Your task to perform on an android device: Add "razer blade" to the cart on bestbuy.com, then select checkout. Image 0: 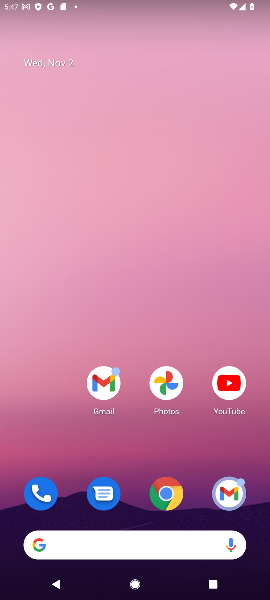
Step 0: drag from (76, 492) to (157, 102)
Your task to perform on an android device: Add "razer blade" to the cart on bestbuy.com, then select checkout. Image 1: 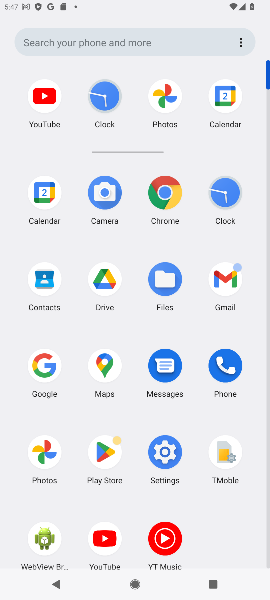
Step 1: click (36, 364)
Your task to perform on an android device: Add "razer blade" to the cart on bestbuy.com, then select checkout. Image 2: 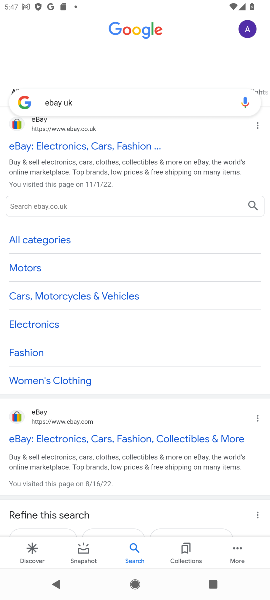
Step 2: click (81, 102)
Your task to perform on an android device: Add "razer blade" to the cart on bestbuy.com, then select checkout. Image 3: 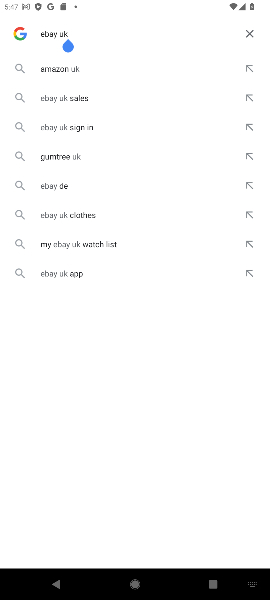
Step 3: click (247, 28)
Your task to perform on an android device: Add "razer blade" to the cart on bestbuy.com, then select checkout. Image 4: 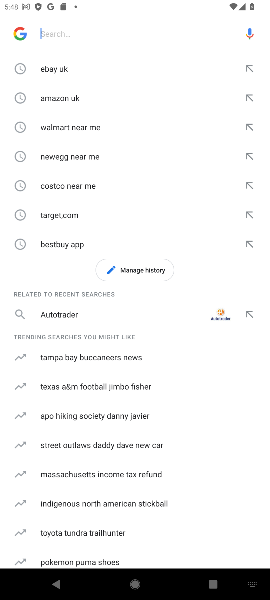
Step 4: click (38, 23)
Your task to perform on an android device: Add "razer blade" to the cart on bestbuy.com, then select checkout. Image 5: 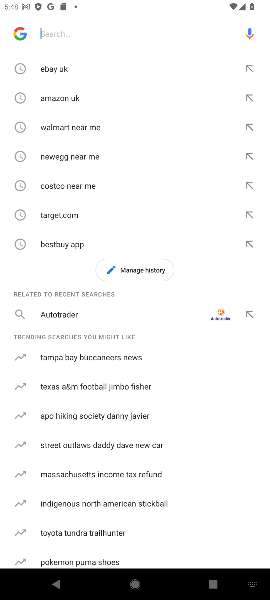
Step 5: type "bestbuy "
Your task to perform on an android device: Add "razer blade" to the cart on bestbuy.com, then select checkout. Image 6: 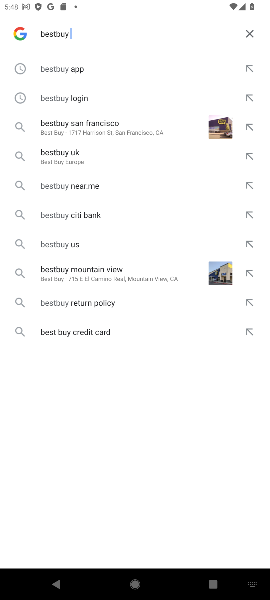
Step 6: click (67, 69)
Your task to perform on an android device: Add "razer blade" to the cart on bestbuy.com, then select checkout. Image 7: 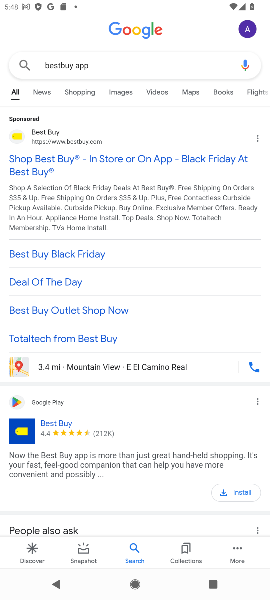
Step 7: drag from (14, 474) to (43, 352)
Your task to perform on an android device: Add "razer blade" to the cart on bestbuy.com, then select checkout. Image 8: 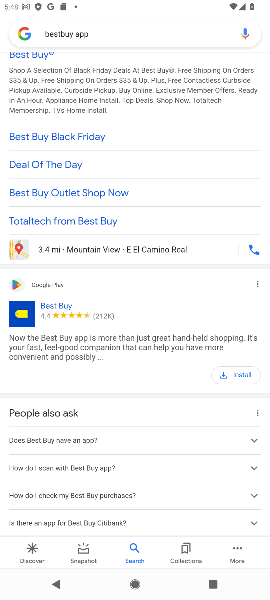
Step 8: drag from (39, 509) to (50, 469)
Your task to perform on an android device: Add "razer blade" to the cart on bestbuy.com, then select checkout. Image 9: 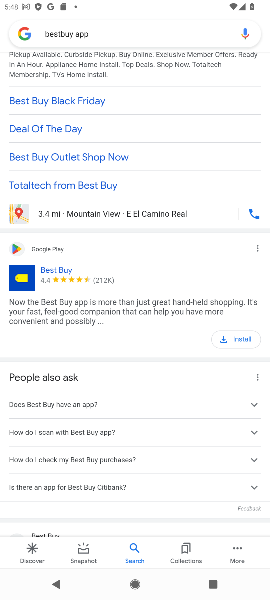
Step 9: click (27, 269)
Your task to perform on an android device: Add "razer blade" to the cart on bestbuy.com, then select checkout. Image 10: 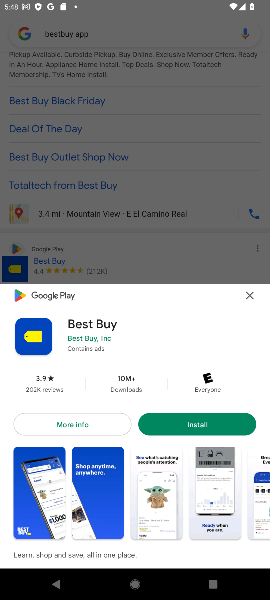
Step 10: click (251, 293)
Your task to perform on an android device: Add "razer blade" to the cart on bestbuy.com, then select checkout. Image 11: 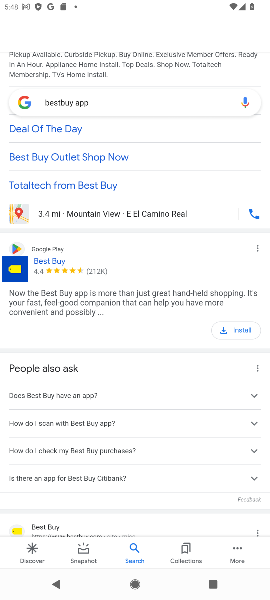
Step 11: drag from (41, 445) to (76, 193)
Your task to perform on an android device: Add "razer blade" to the cart on bestbuy.com, then select checkout. Image 12: 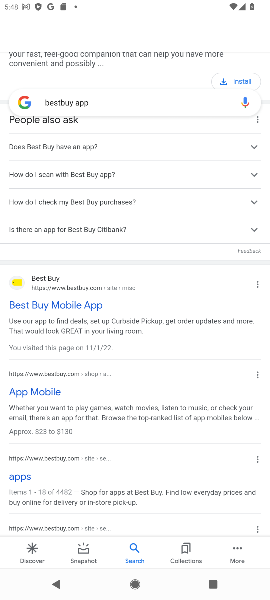
Step 12: click (16, 284)
Your task to perform on an android device: Add "razer blade" to the cart on bestbuy.com, then select checkout. Image 13: 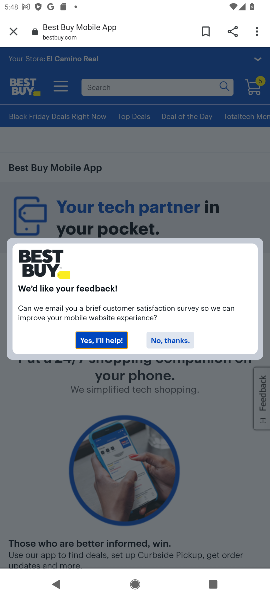
Step 13: click (173, 333)
Your task to perform on an android device: Add "razer blade" to the cart on bestbuy.com, then select checkout. Image 14: 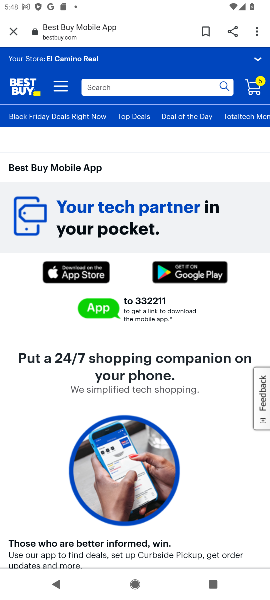
Step 14: click (162, 85)
Your task to perform on an android device: Add "razer blade" to the cart on bestbuy.com, then select checkout. Image 15: 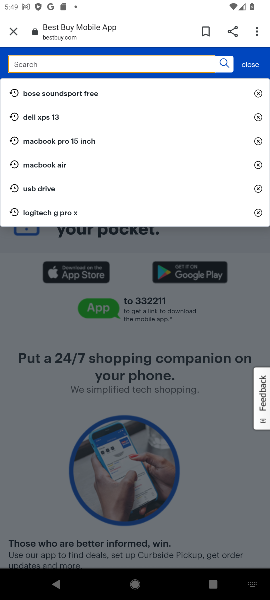
Step 15: click (63, 76)
Your task to perform on an android device: Add "razer blade" to the cart on bestbuy.com, then select checkout. Image 16: 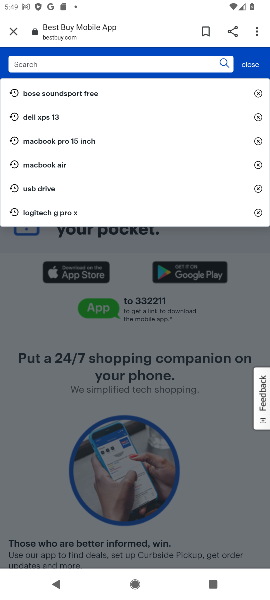
Step 16: click (66, 58)
Your task to perform on an android device: Add "razer blade" to the cart on bestbuy.com, then select checkout. Image 17: 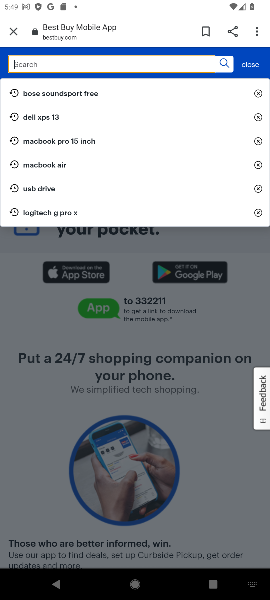
Step 17: click (66, 58)
Your task to perform on an android device: Add "razer blade" to the cart on bestbuy.com, then select checkout. Image 18: 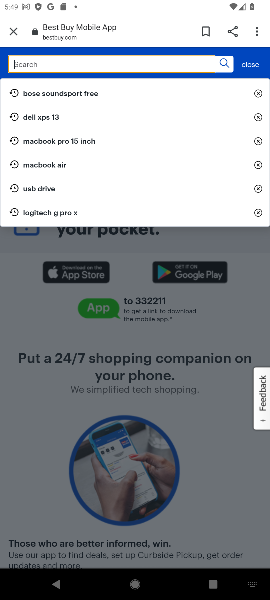
Step 18: type "razer blade "
Your task to perform on an android device: Add "razer blade" to the cart on bestbuy.com, then select checkout. Image 19: 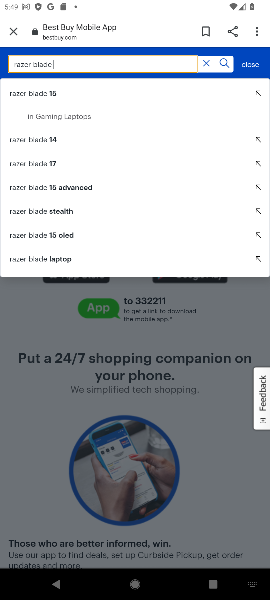
Step 19: click (44, 94)
Your task to perform on an android device: Add "razer blade" to the cart on bestbuy.com, then select checkout. Image 20: 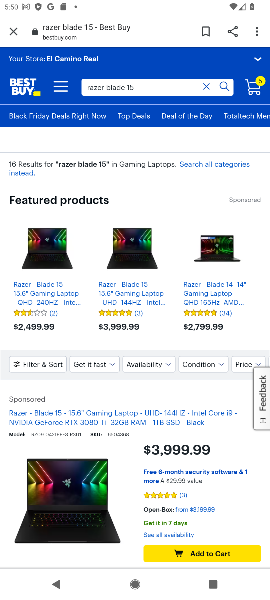
Step 20: click (178, 549)
Your task to perform on an android device: Add "razer blade" to the cart on bestbuy.com, then select checkout. Image 21: 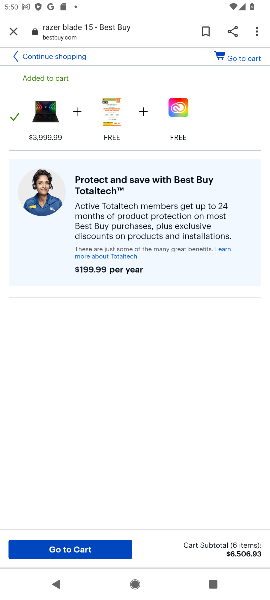
Step 21: task complete